Your task to perform on an android device: What's the weather? Image 0: 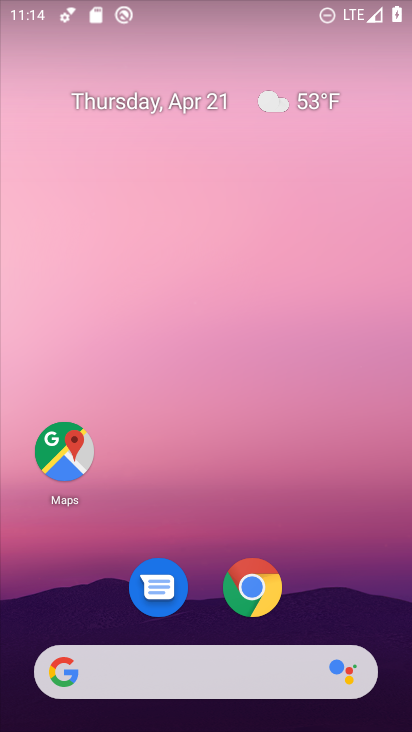
Step 0: click (301, 98)
Your task to perform on an android device: What's the weather? Image 1: 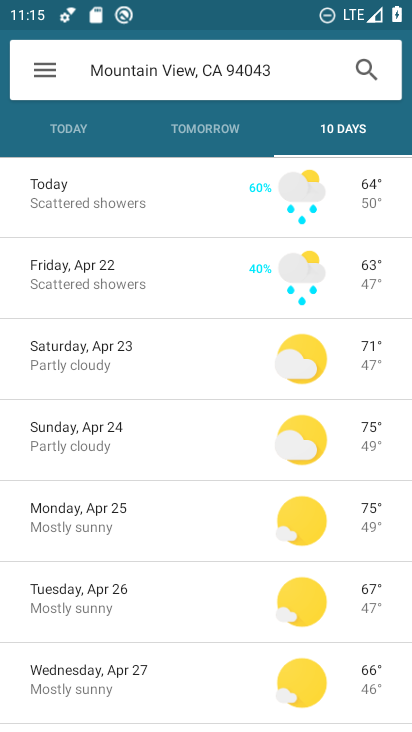
Step 1: task complete